Your task to perform on an android device: add a contact in the contacts app Image 0: 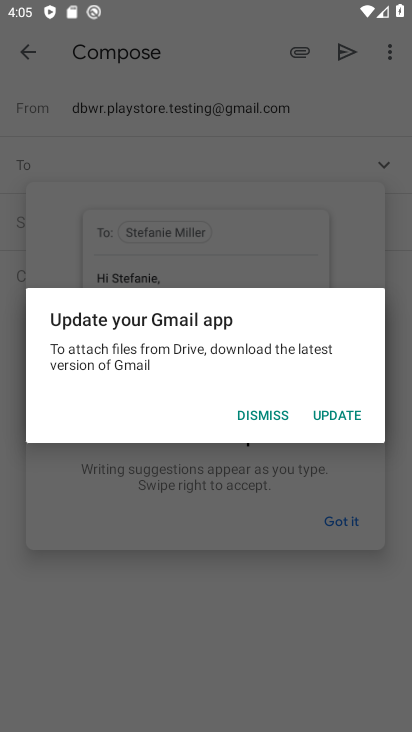
Step 0: press home button
Your task to perform on an android device: add a contact in the contacts app Image 1: 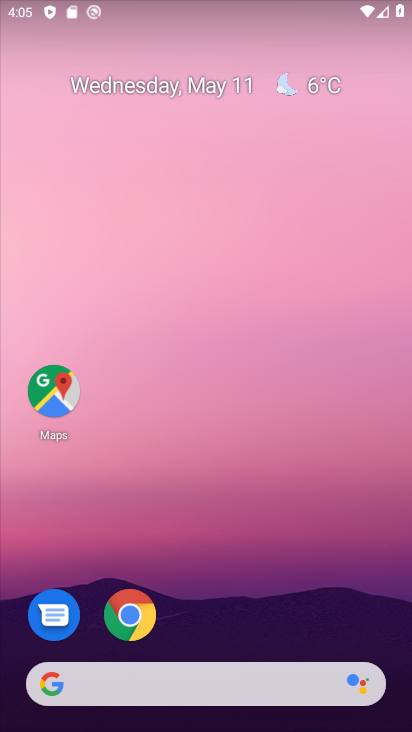
Step 1: drag from (253, 589) to (240, 323)
Your task to perform on an android device: add a contact in the contacts app Image 2: 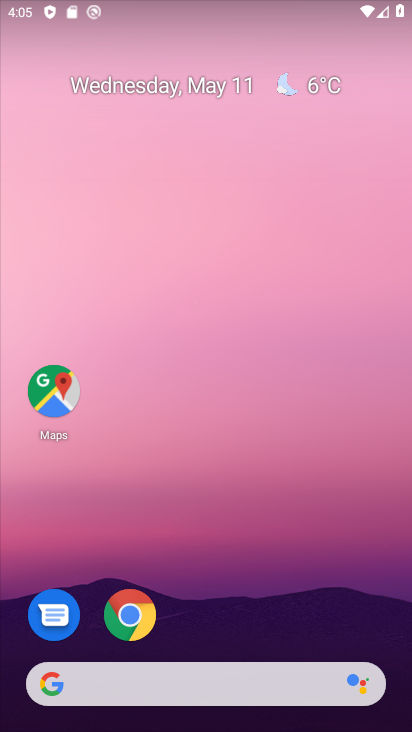
Step 2: drag from (324, 616) to (282, 283)
Your task to perform on an android device: add a contact in the contacts app Image 3: 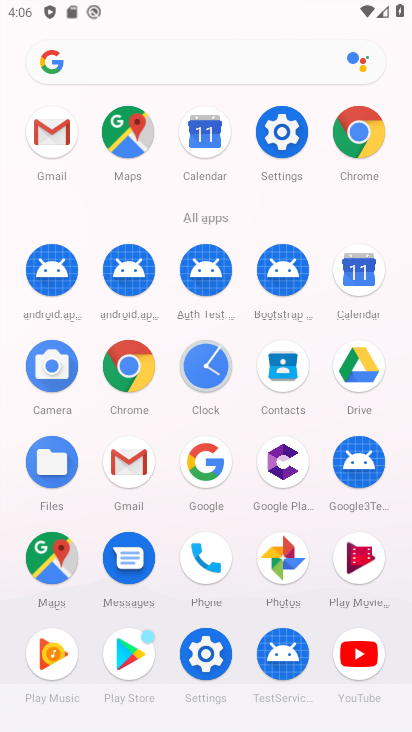
Step 3: click (285, 360)
Your task to perform on an android device: add a contact in the contacts app Image 4: 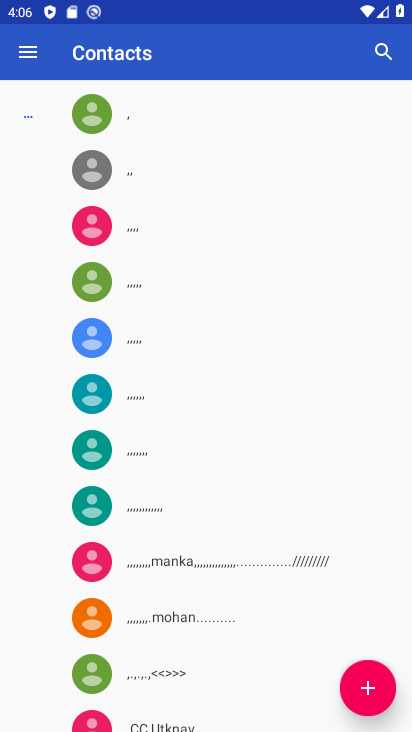
Step 4: click (371, 701)
Your task to perform on an android device: add a contact in the contacts app Image 5: 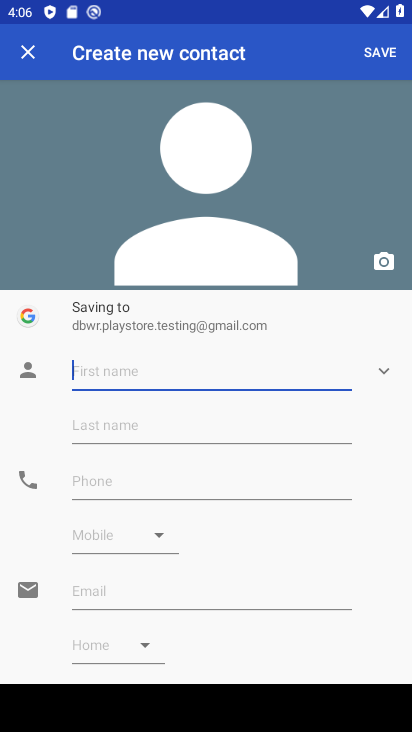
Step 5: type "rvrvrv"
Your task to perform on an android device: add a contact in the contacts app Image 6: 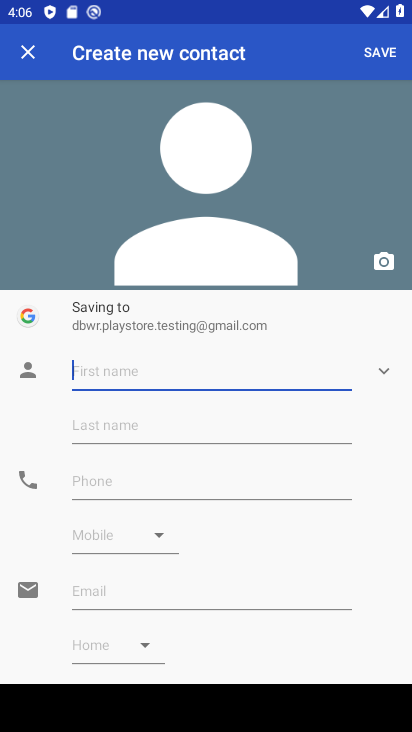
Step 6: click (174, 476)
Your task to perform on an android device: add a contact in the contacts app Image 7: 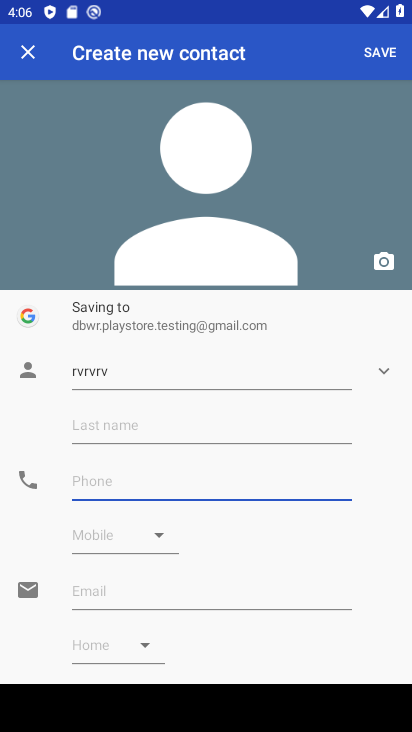
Step 7: type "6666555544"
Your task to perform on an android device: add a contact in the contacts app Image 8: 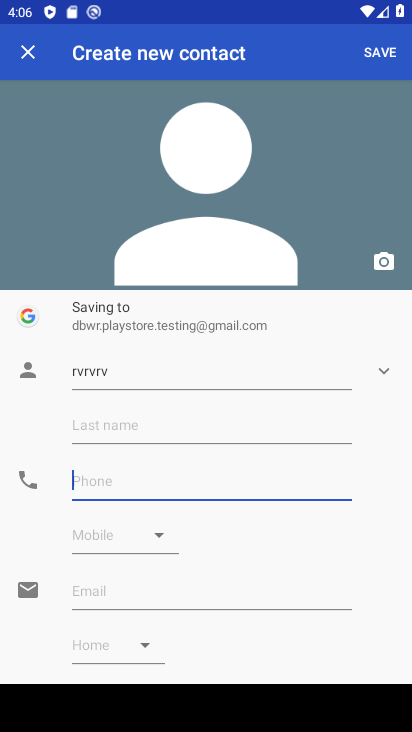
Step 8: click (245, 366)
Your task to perform on an android device: add a contact in the contacts app Image 9: 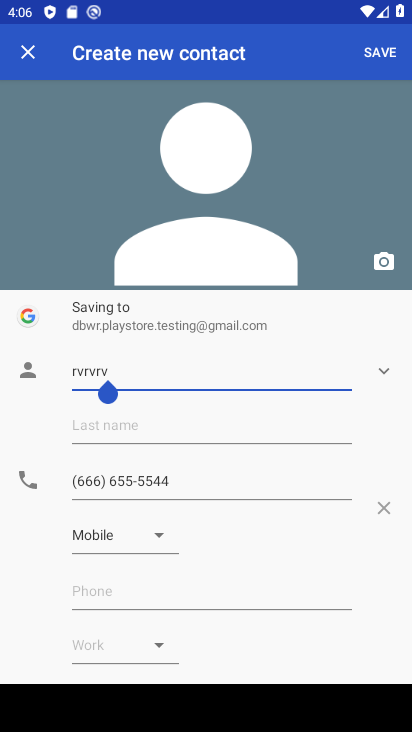
Step 9: click (383, 52)
Your task to perform on an android device: add a contact in the contacts app Image 10: 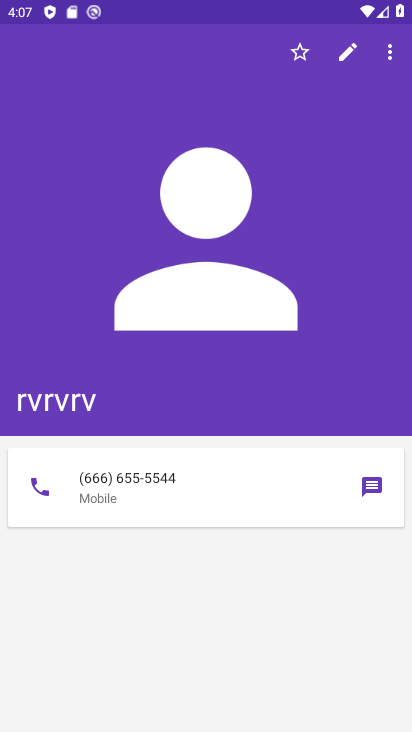
Step 10: task complete